Your task to perform on an android device: toggle translation in the chrome app Image 0: 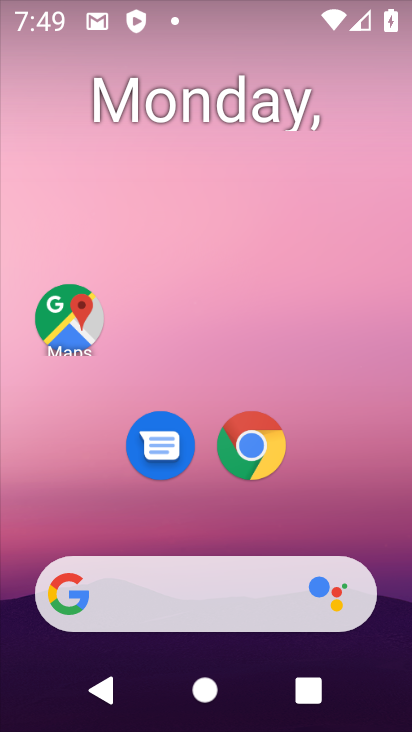
Step 0: click (270, 445)
Your task to perform on an android device: toggle translation in the chrome app Image 1: 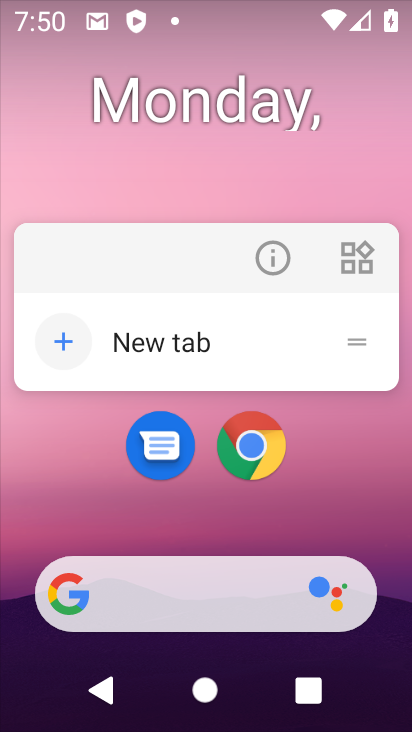
Step 1: click (270, 445)
Your task to perform on an android device: toggle translation in the chrome app Image 2: 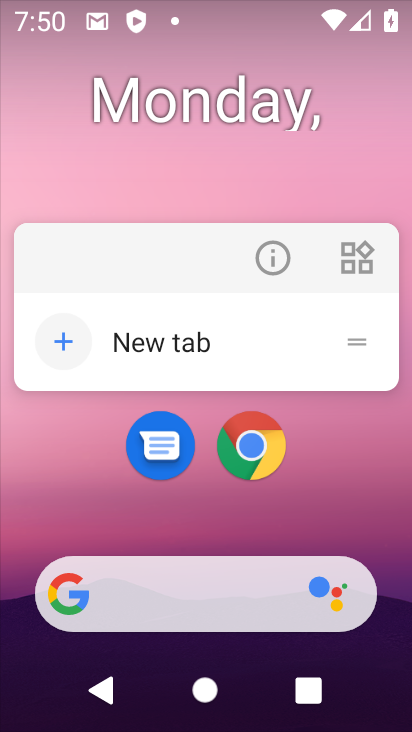
Step 2: click (273, 448)
Your task to perform on an android device: toggle translation in the chrome app Image 3: 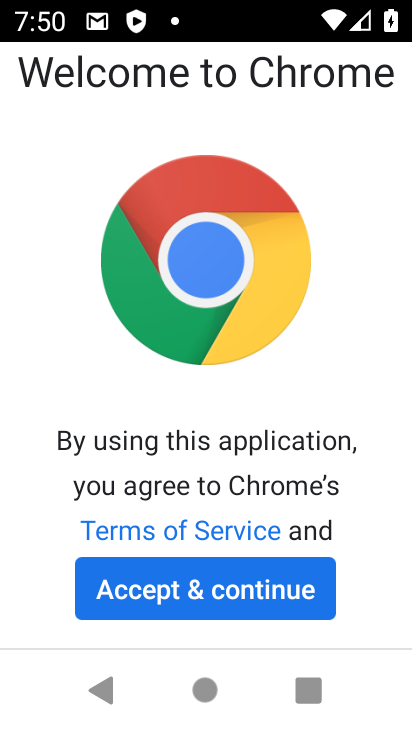
Step 3: click (269, 583)
Your task to perform on an android device: toggle translation in the chrome app Image 4: 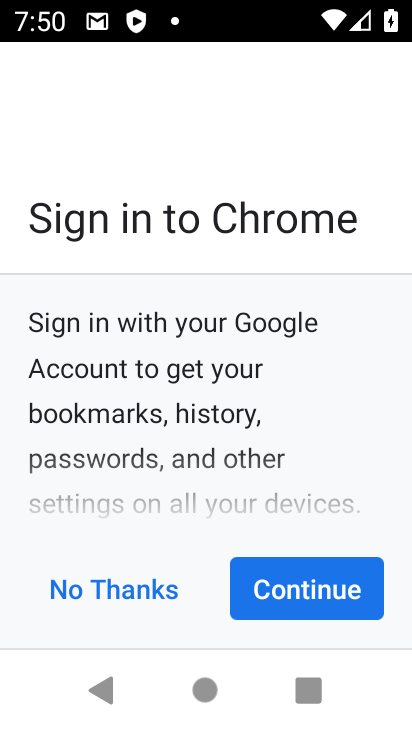
Step 4: click (327, 606)
Your task to perform on an android device: toggle translation in the chrome app Image 5: 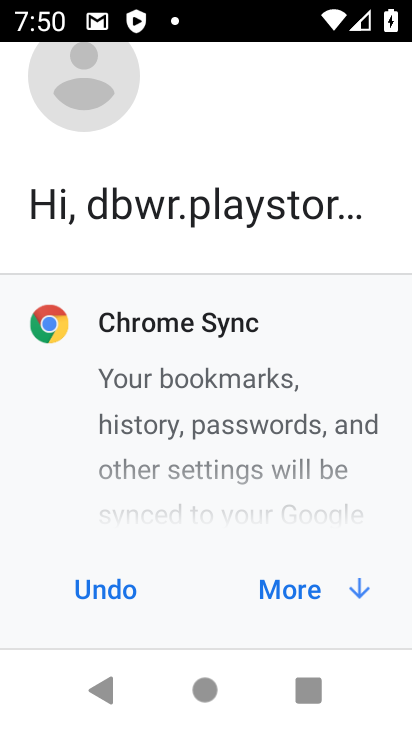
Step 5: click (286, 591)
Your task to perform on an android device: toggle translation in the chrome app Image 6: 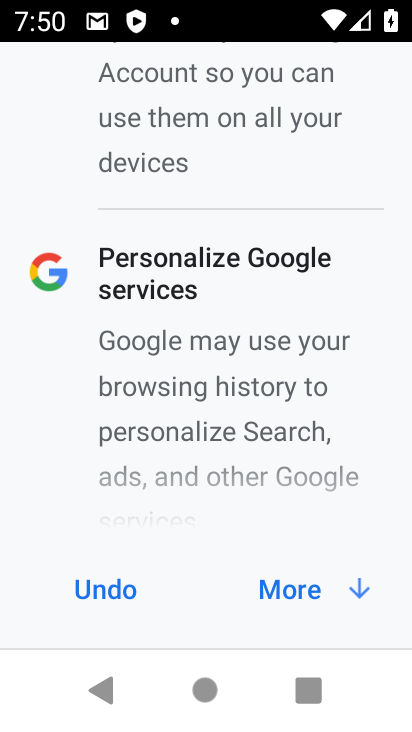
Step 6: click (286, 591)
Your task to perform on an android device: toggle translation in the chrome app Image 7: 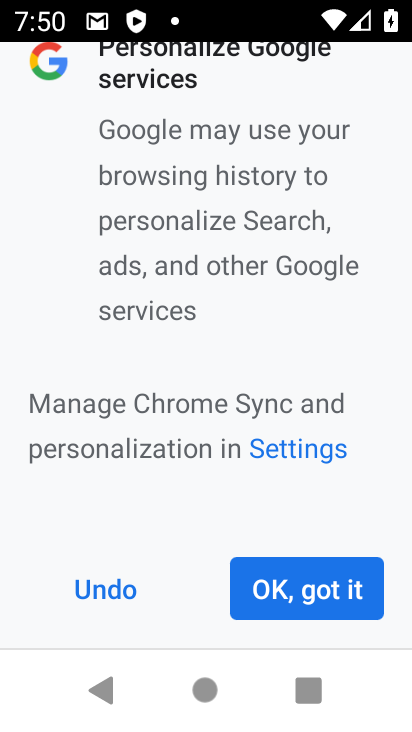
Step 7: click (286, 591)
Your task to perform on an android device: toggle translation in the chrome app Image 8: 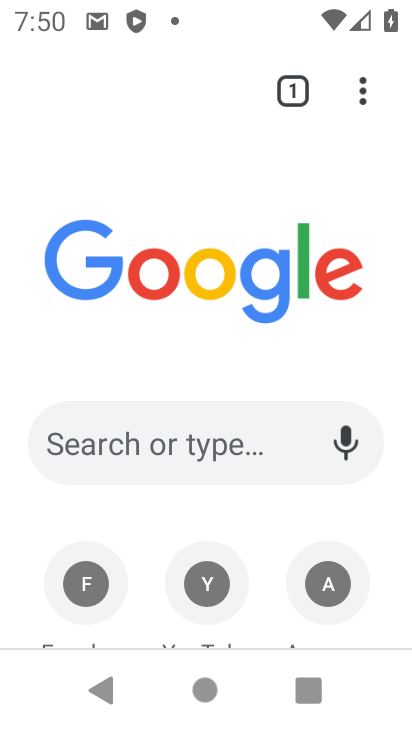
Step 8: click (364, 75)
Your task to perform on an android device: toggle translation in the chrome app Image 9: 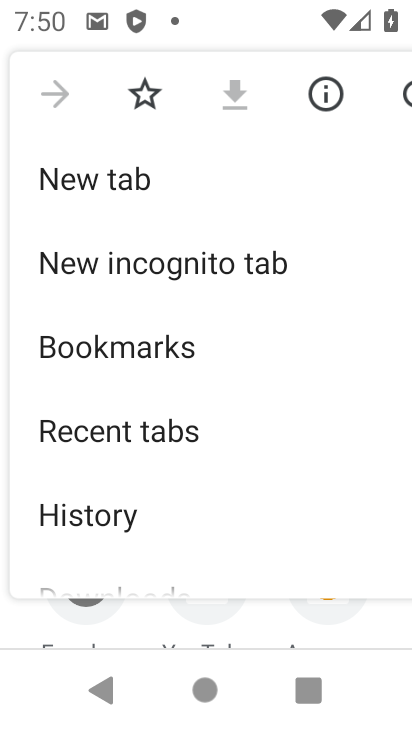
Step 9: drag from (273, 508) to (312, 52)
Your task to perform on an android device: toggle translation in the chrome app Image 10: 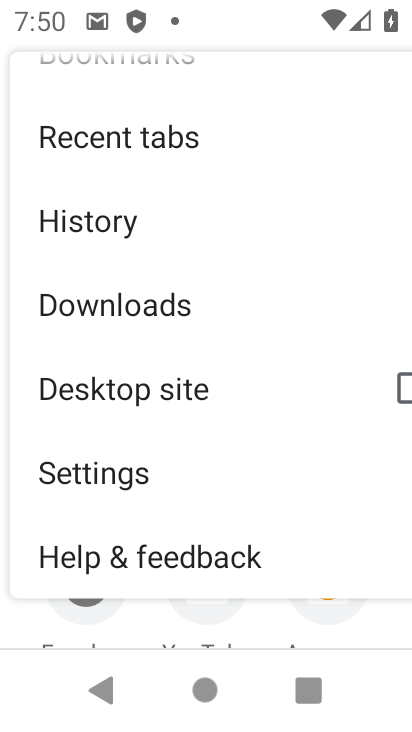
Step 10: click (152, 471)
Your task to perform on an android device: toggle translation in the chrome app Image 11: 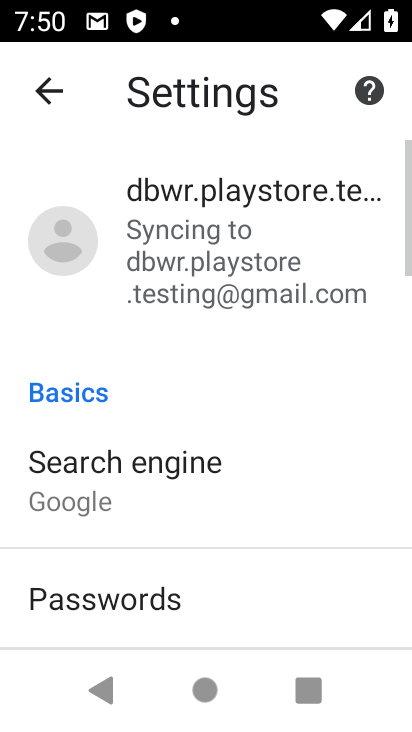
Step 11: drag from (265, 512) to (275, 2)
Your task to perform on an android device: toggle translation in the chrome app Image 12: 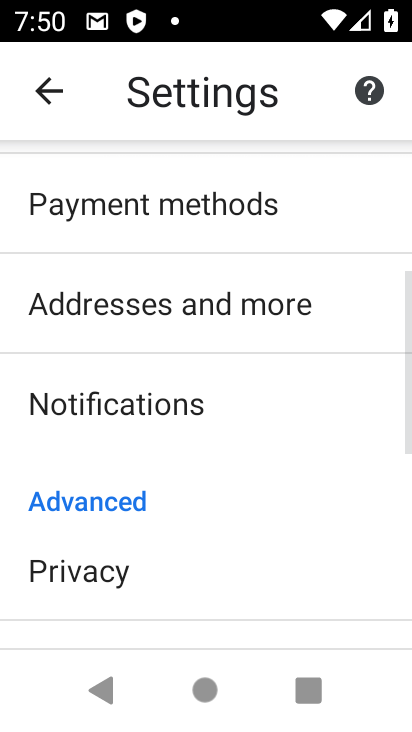
Step 12: drag from (296, 595) to (293, 92)
Your task to perform on an android device: toggle translation in the chrome app Image 13: 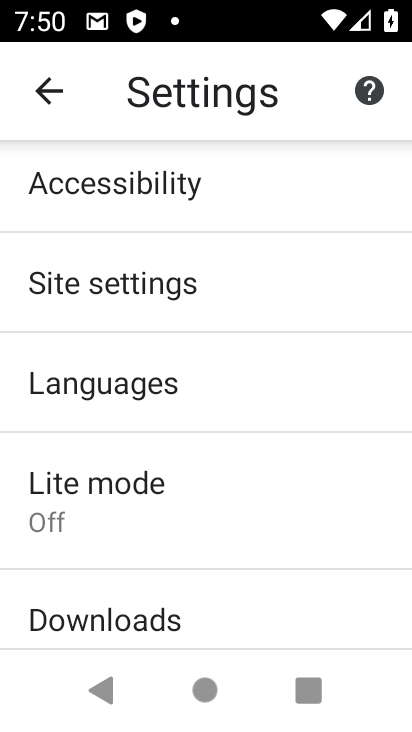
Step 13: click (270, 366)
Your task to perform on an android device: toggle translation in the chrome app Image 14: 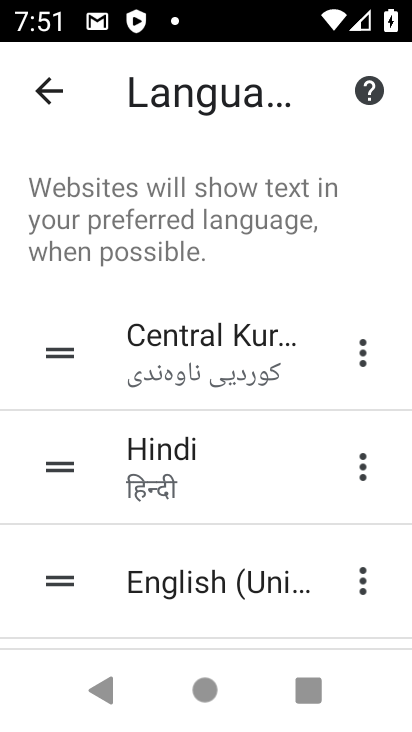
Step 14: drag from (292, 520) to (272, 9)
Your task to perform on an android device: toggle translation in the chrome app Image 15: 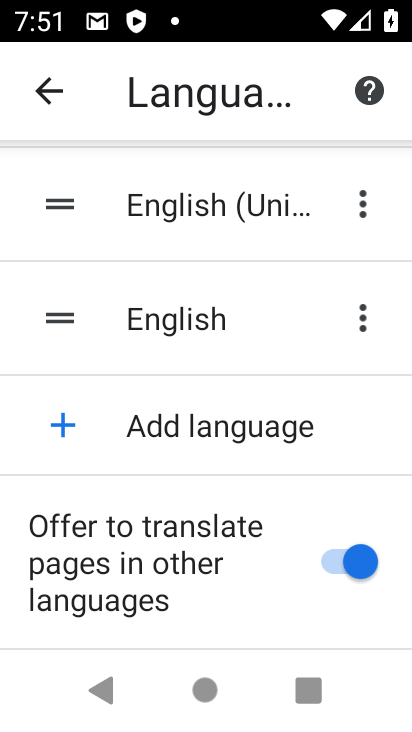
Step 15: drag from (236, 570) to (309, 25)
Your task to perform on an android device: toggle translation in the chrome app Image 16: 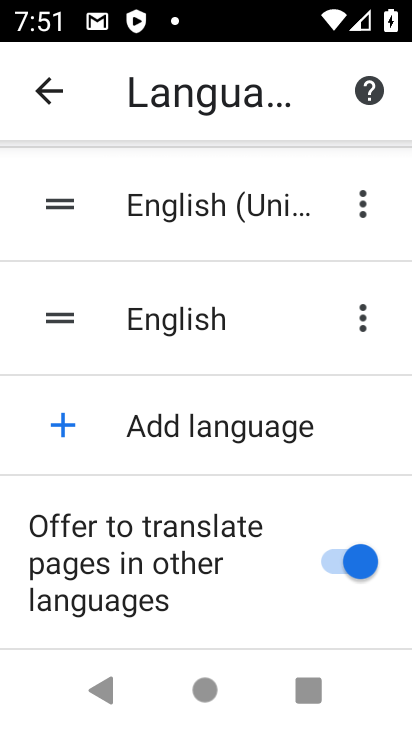
Step 16: click (365, 567)
Your task to perform on an android device: toggle translation in the chrome app Image 17: 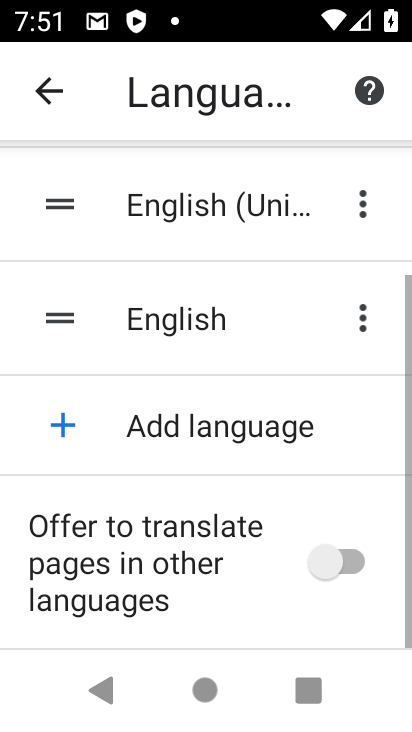
Step 17: task complete